Your task to perform on an android device: all mails in gmail Image 0: 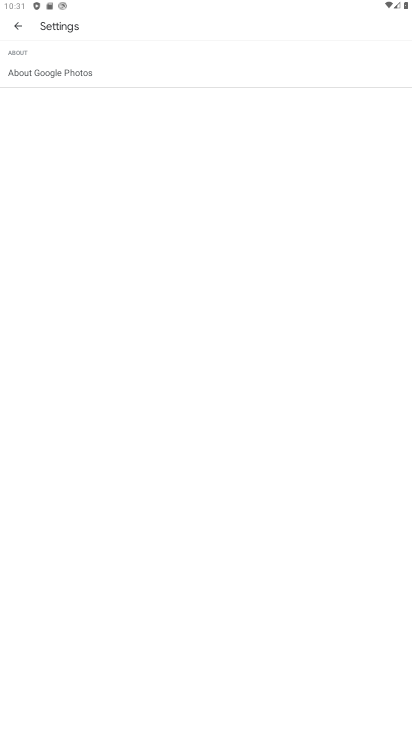
Step 0: press home button
Your task to perform on an android device: all mails in gmail Image 1: 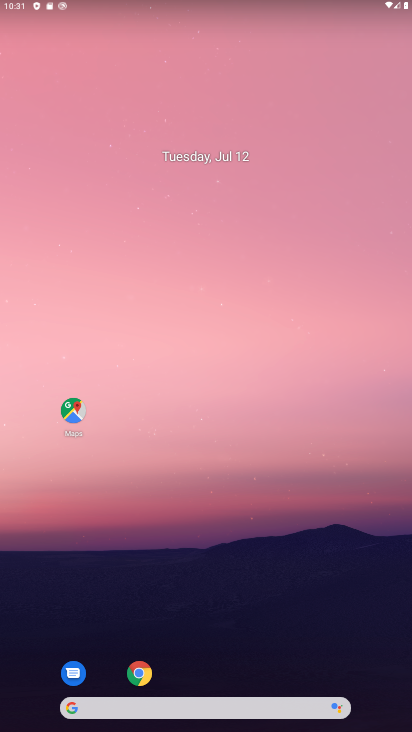
Step 1: drag from (182, 680) to (269, 211)
Your task to perform on an android device: all mails in gmail Image 2: 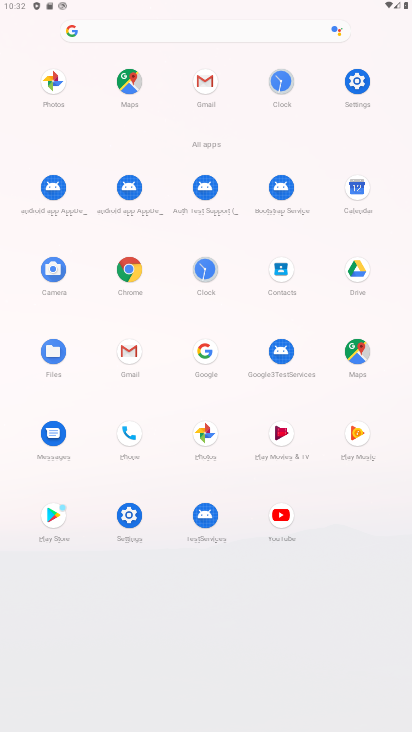
Step 2: click (128, 347)
Your task to perform on an android device: all mails in gmail Image 3: 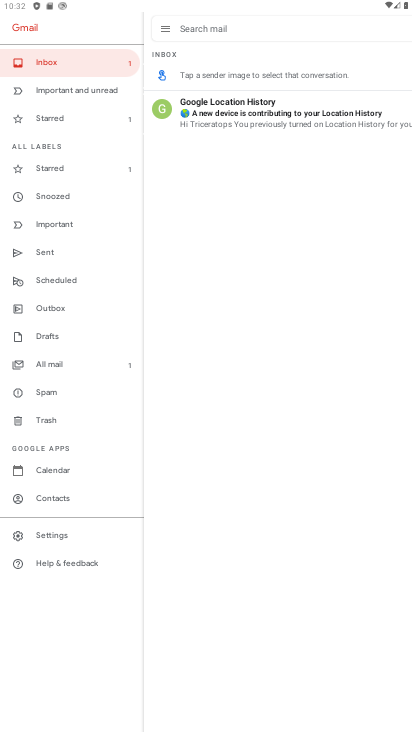
Step 3: click (69, 363)
Your task to perform on an android device: all mails in gmail Image 4: 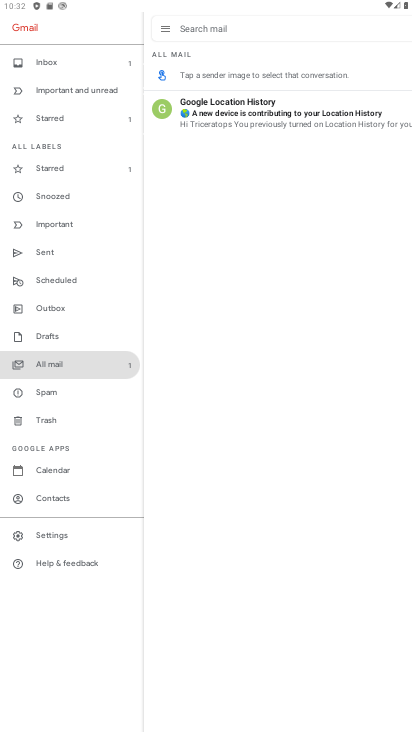
Step 4: task complete